Your task to perform on an android device: Go to notification settings Image 0: 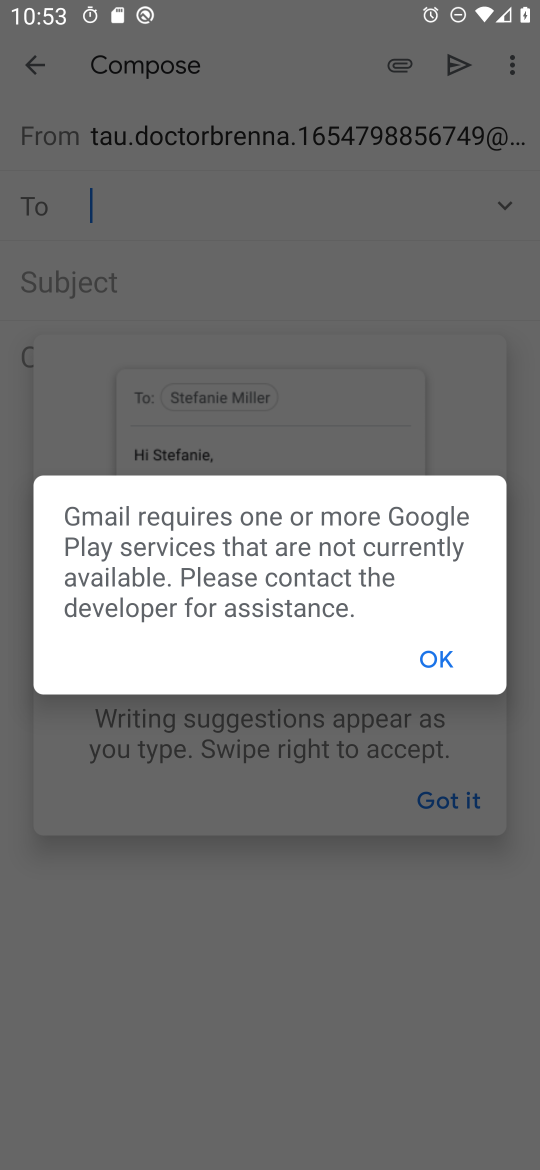
Step 0: press home button
Your task to perform on an android device: Go to notification settings Image 1: 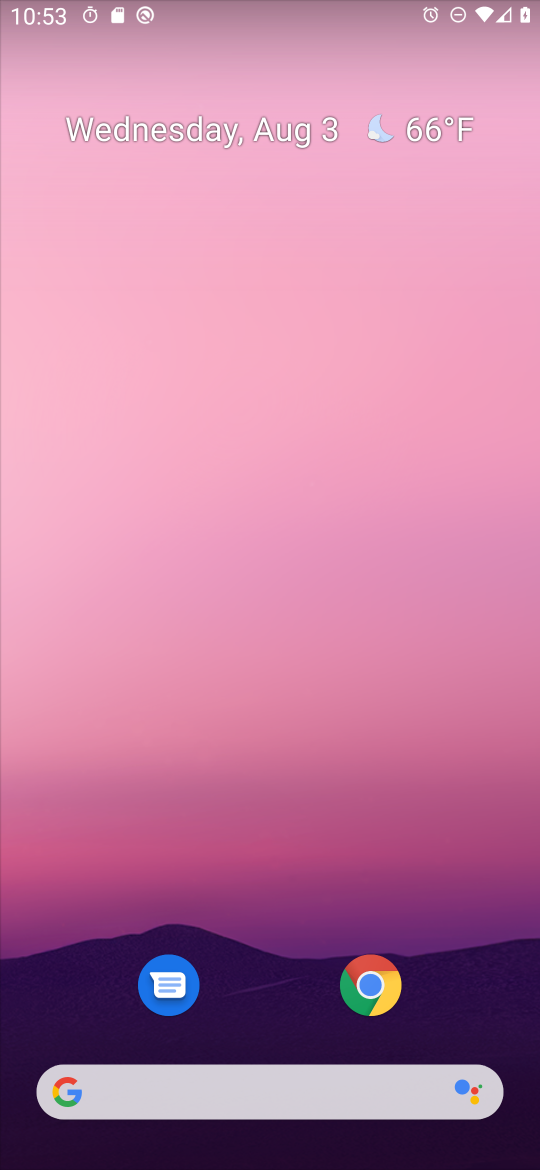
Step 1: drag from (268, 869) to (224, 233)
Your task to perform on an android device: Go to notification settings Image 2: 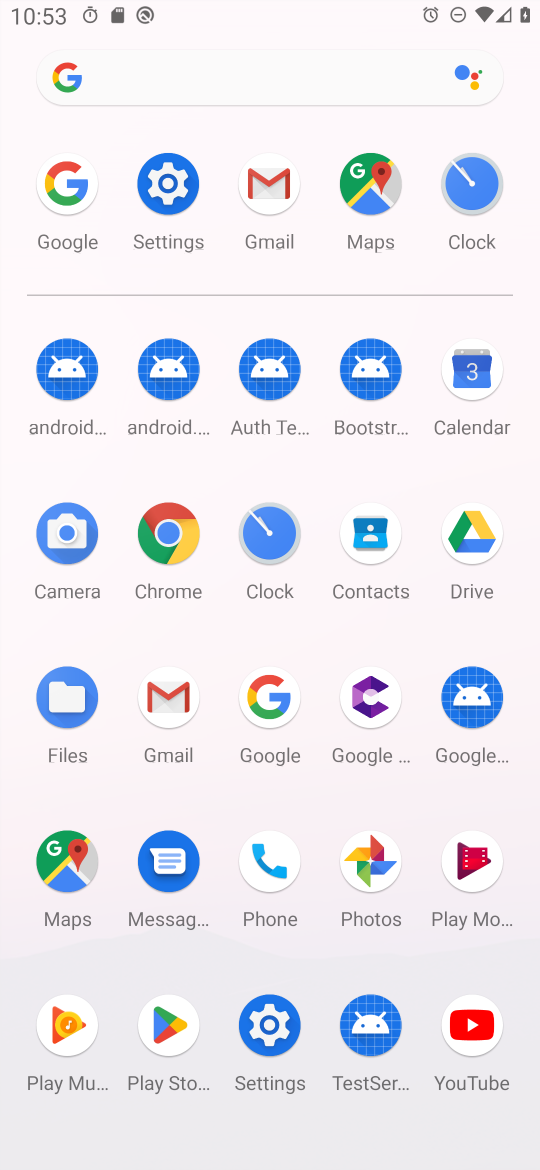
Step 2: click (174, 182)
Your task to perform on an android device: Go to notification settings Image 3: 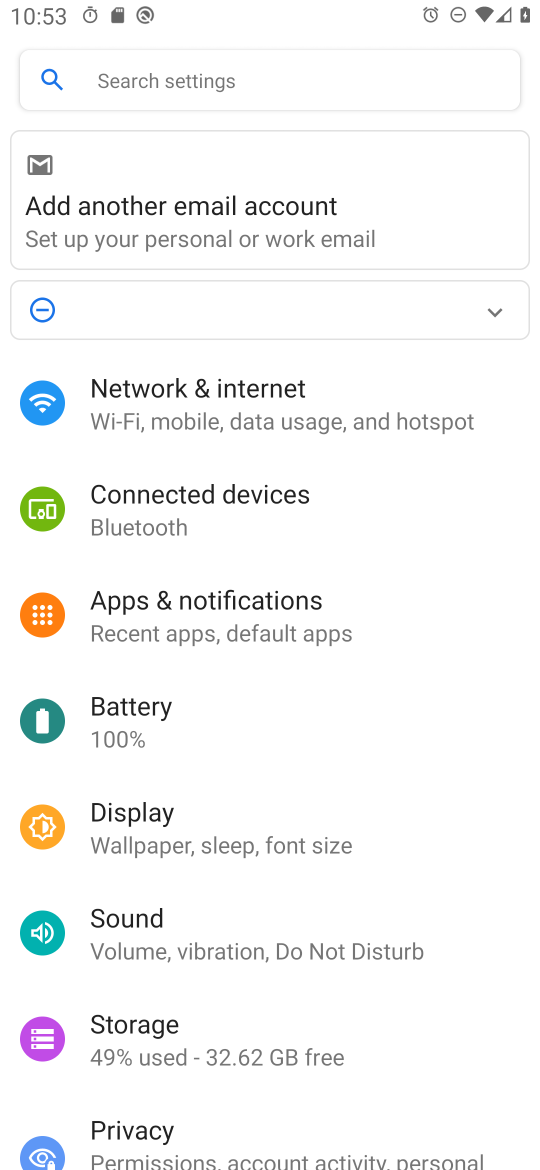
Step 3: click (214, 587)
Your task to perform on an android device: Go to notification settings Image 4: 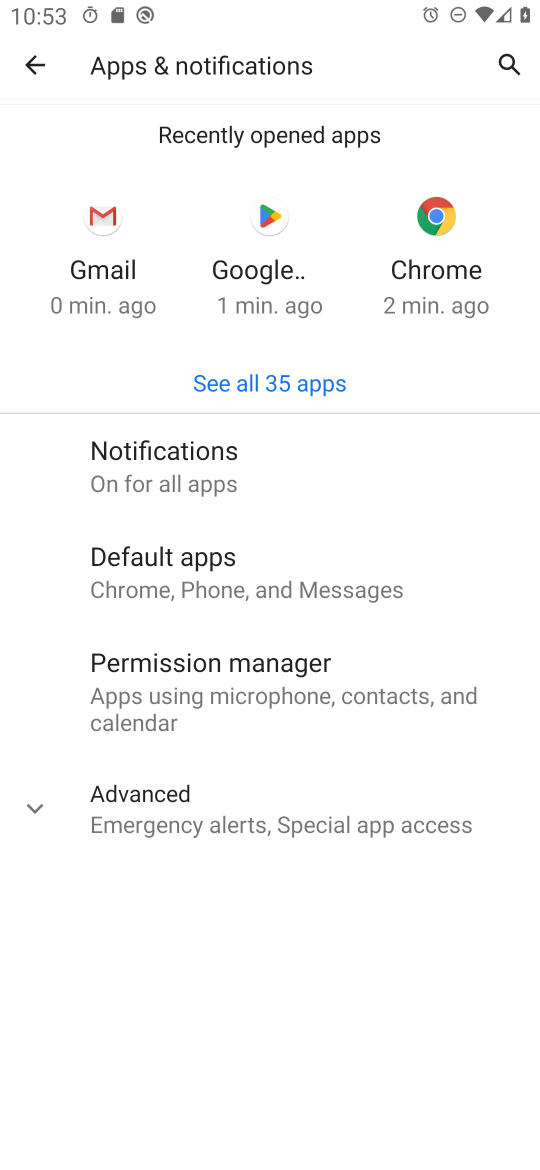
Step 4: click (168, 467)
Your task to perform on an android device: Go to notification settings Image 5: 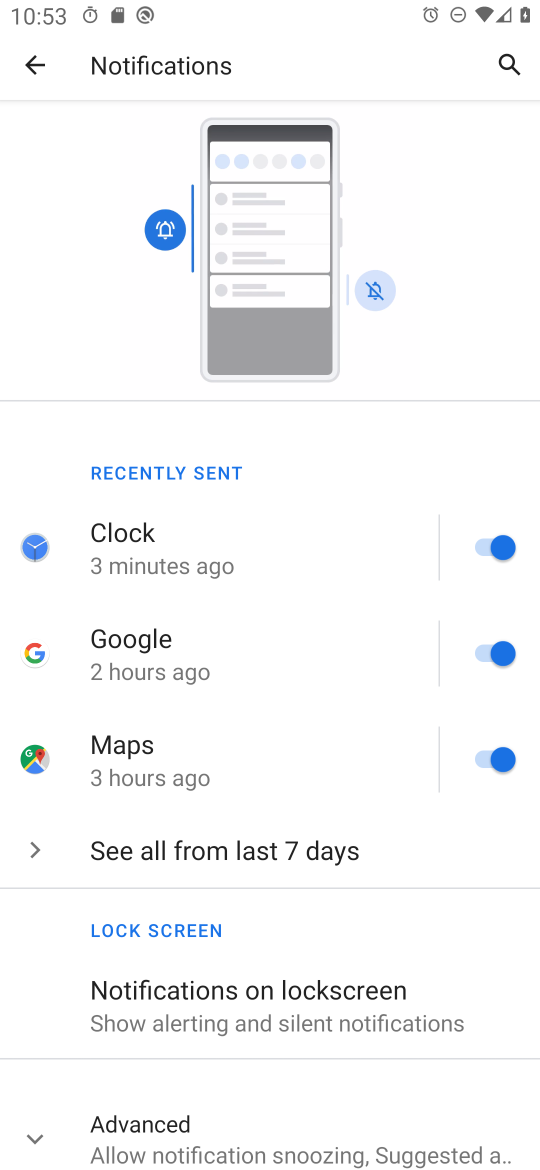
Step 5: task complete